Your task to perform on an android device: choose inbox layout in the gmail app Image 0: 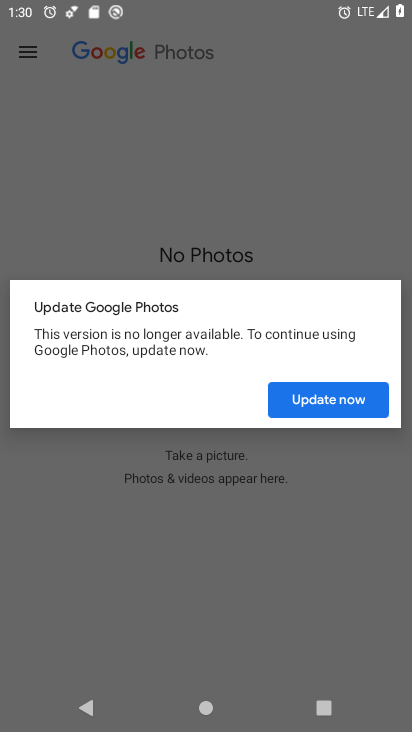
Step 0: press home button
Your task to perform on an android device: choose inbox layout in the gmail app Image 1: 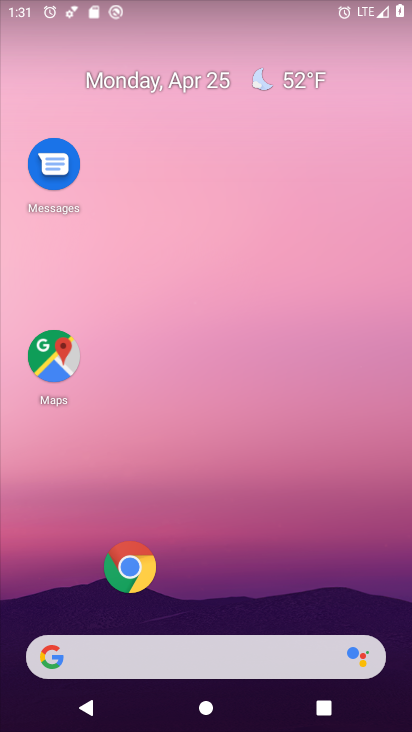
Step 1: drag from (301, 609) to (307, 4)
Your task to perform on an android device: choose inbox layout in the gmail app Image 2: 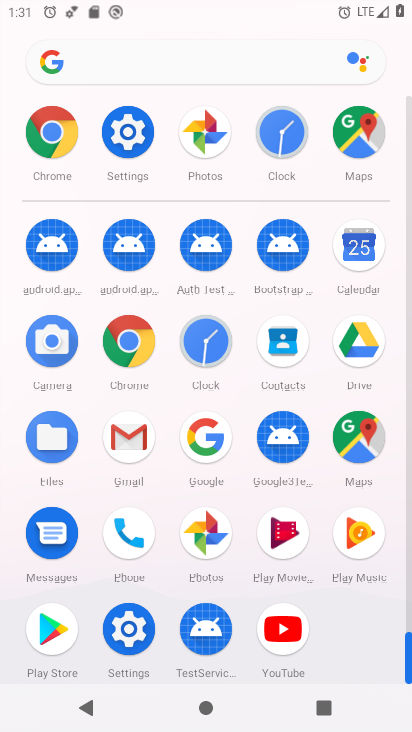
Step 2: click (143, 448)
Your task to perform on an android device: choose inbox layout in the gmail app Image 3: 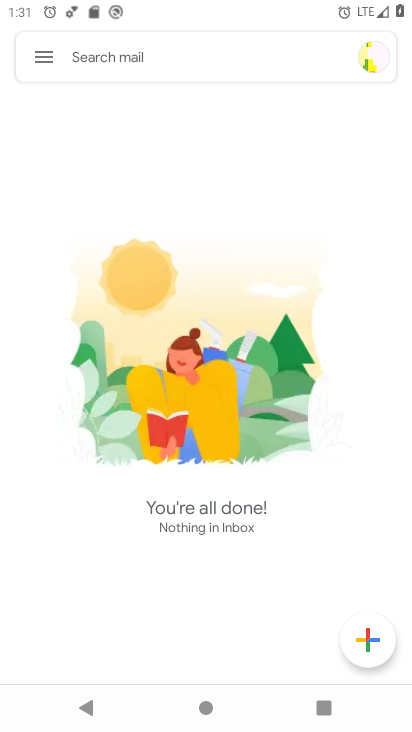
Step 3: click (38, 62)
Your task to perform on an android device: choose inbox layout in the gmail app Image 4: 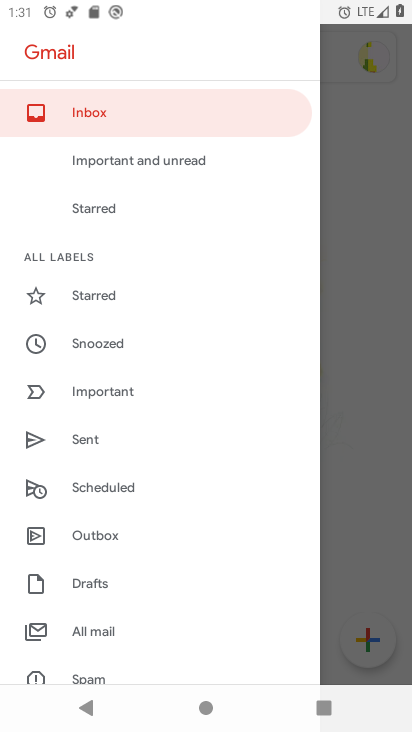
Step 4: drag from (133, 520) to (138, 122)
Your task to perform on an android device: choose inbox layout in the gmail app Image 5: 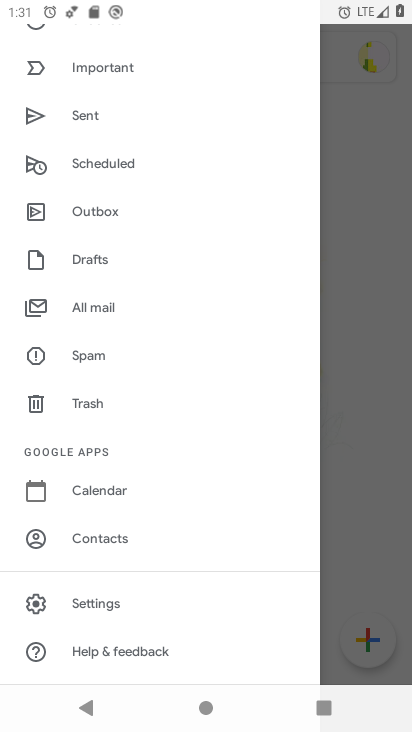
Step 5: click (120, 595)
Your task to perform on an android device: choose inbox layout in the gmail app Image 6: 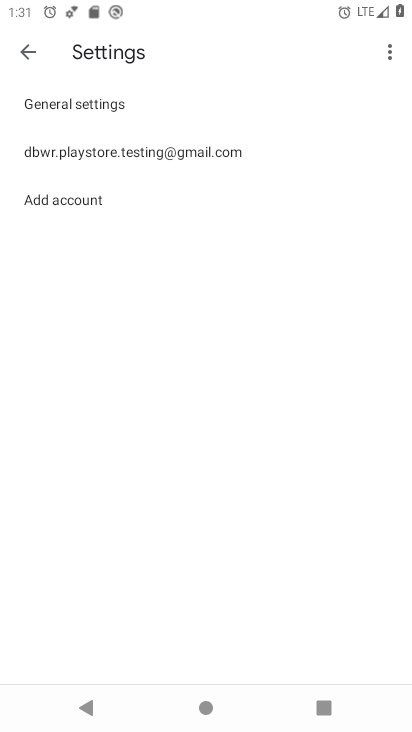
Step 6: task complete